Your task to perform on an android device: turn off picture-in-picture Image 0: 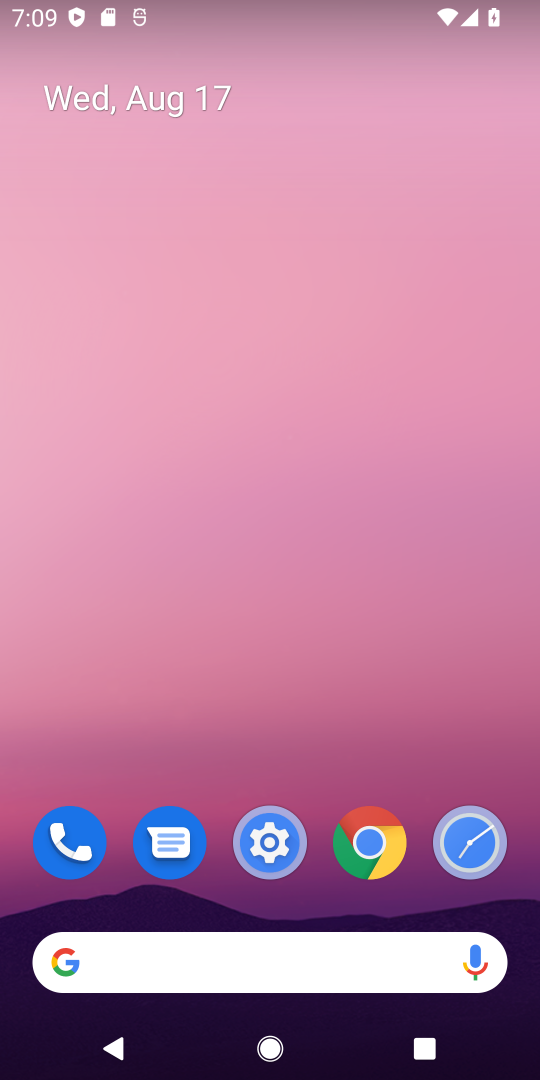
Step 0: click (380, 841)
Your task to perform on an android device: turn off picture-in-picture Image 1: 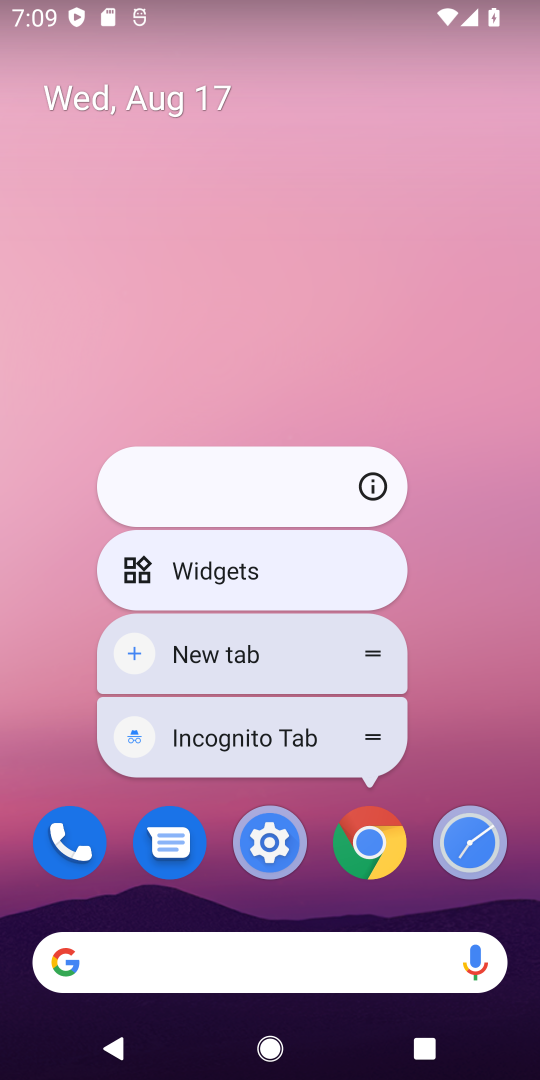
Step 1: click (377, 483)
Your task to perform on an android device: turn off picture-in-picture Image 2: 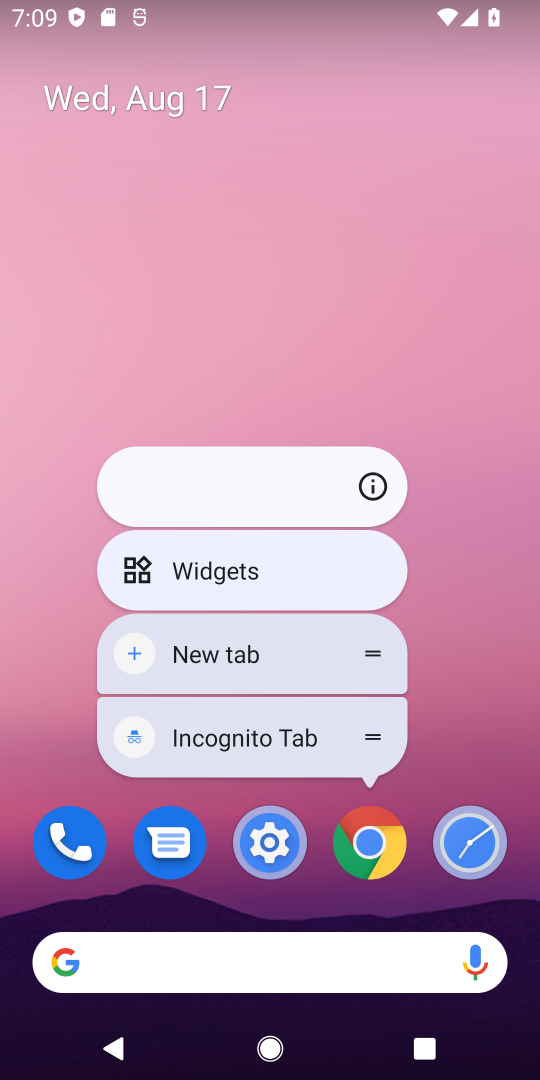
Step 2: click (377, 485)
Your task to perform on an android device: turn off picture-in-picture Image 3: 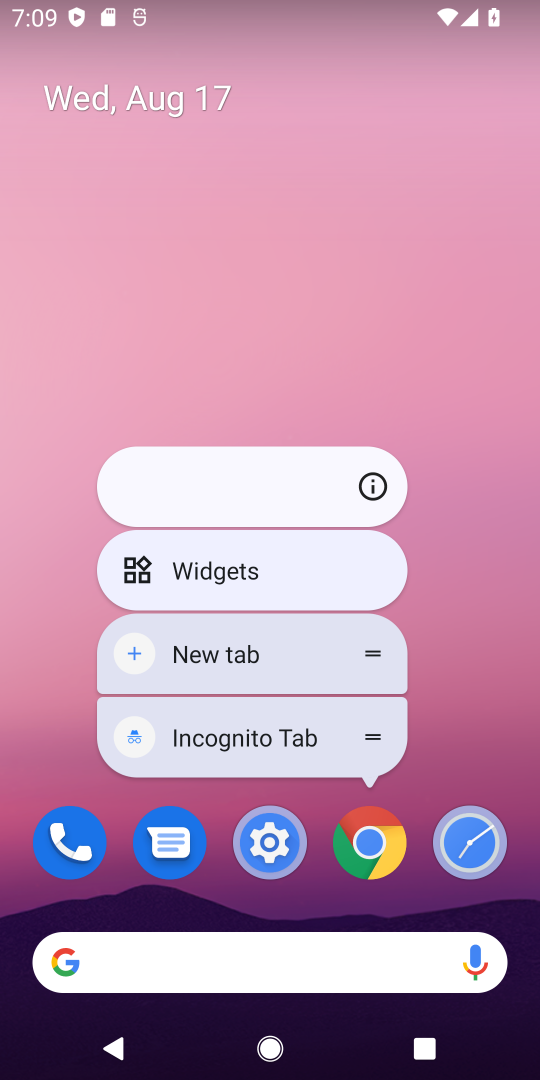
Step 3: click (377, 481)
Your task to perform on an android device: turn off picture-in-picture Image 4: 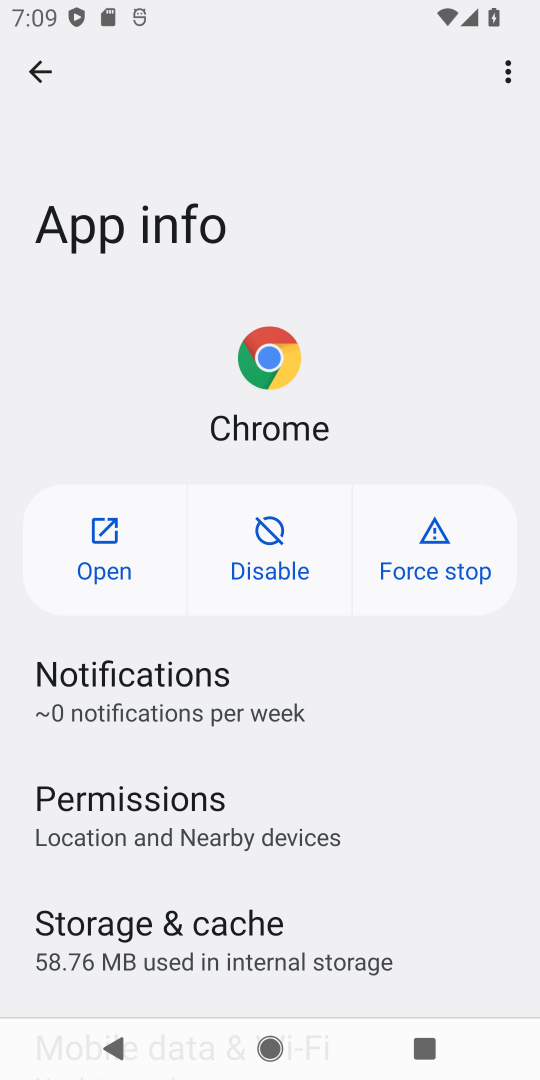
Step 4: drag from (307, 874) to (322, 0)
Your task to perform on an android device: turn off picture-in-picture Image 5: 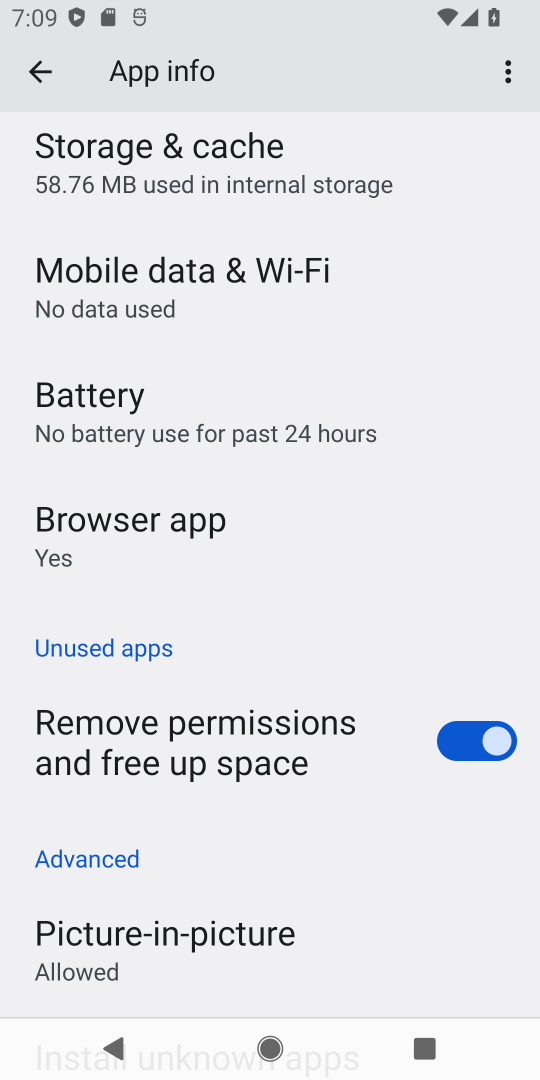
Step 5: click (251, 943)
Your task to perform on an android device: turn off picture-in-picture Image 6: 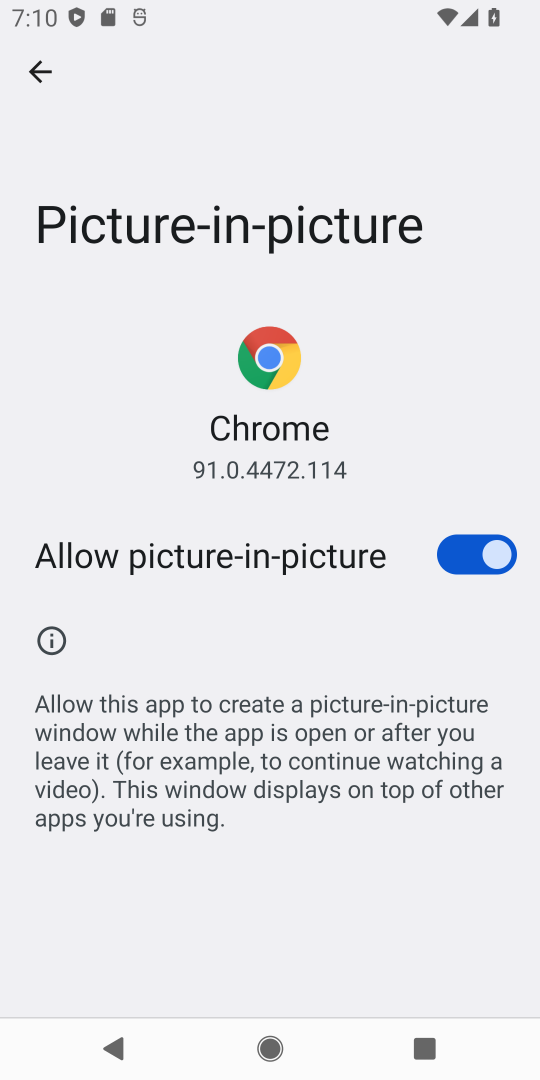
Step 6: click (485, 548)
Your task to perform on an android device: turn off picture-in-picture Image 7: 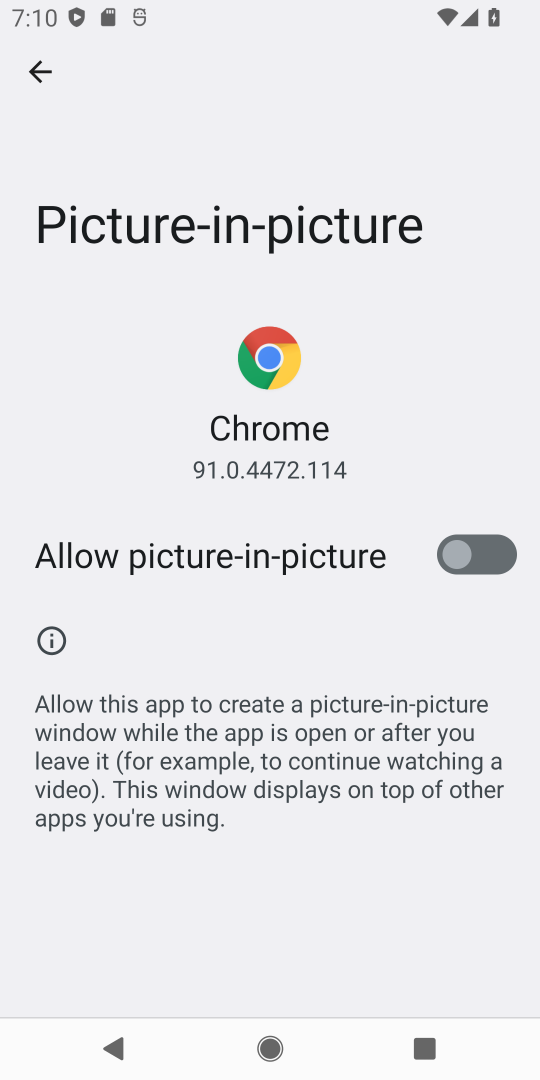
Step 7: task complete